Your task to perform on an android device: delete location history Image 0: 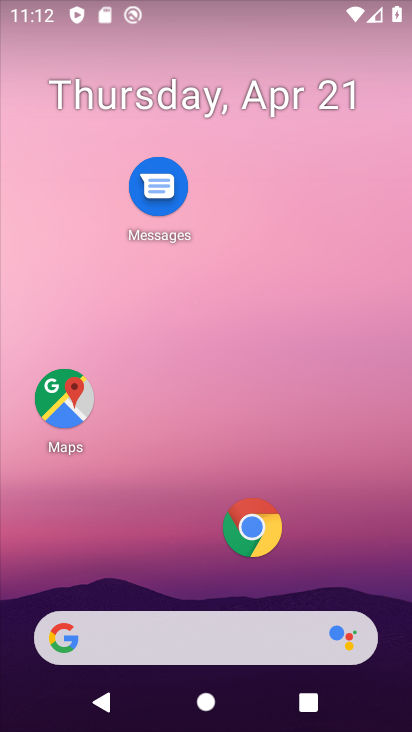
Step 0: drag from (219, 602) to (366, 347)
Your task to perform on an android device: delete location history Image 1: 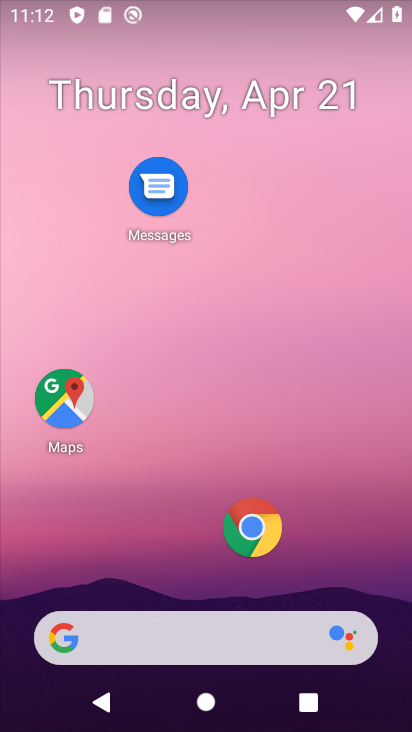
Step 1: drag from (254, 591) to (296, 25)
Your task to perform on an android device: delete location history Image 2: 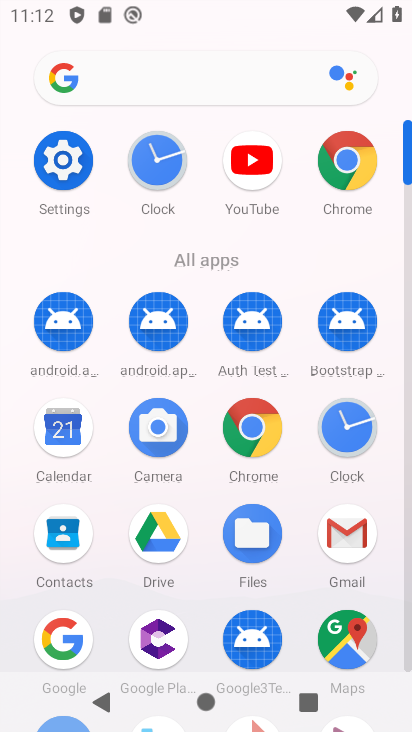
Step 2: click (342, 639)
Your task to perform on an android device: delete location history Image 3: 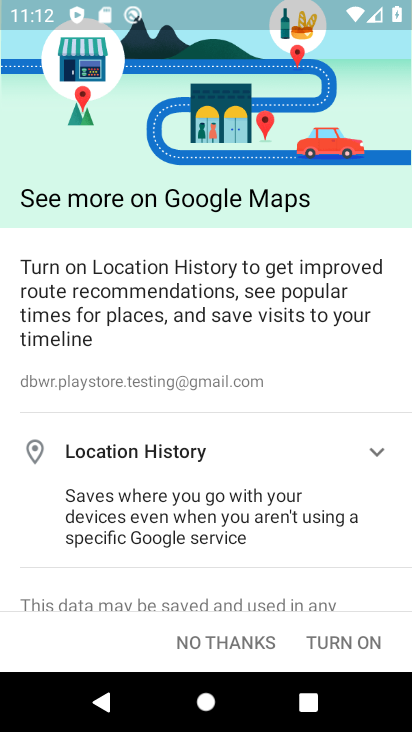
Step 3: click (355, 636)
Your task to perform on an android device: delete location history Image 4: 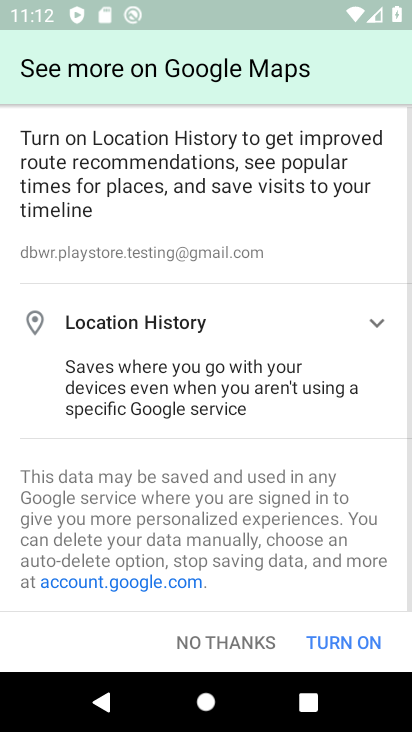
Step 4: click (355, 636)
Your task to perform on an android device: delete location history Image 5: 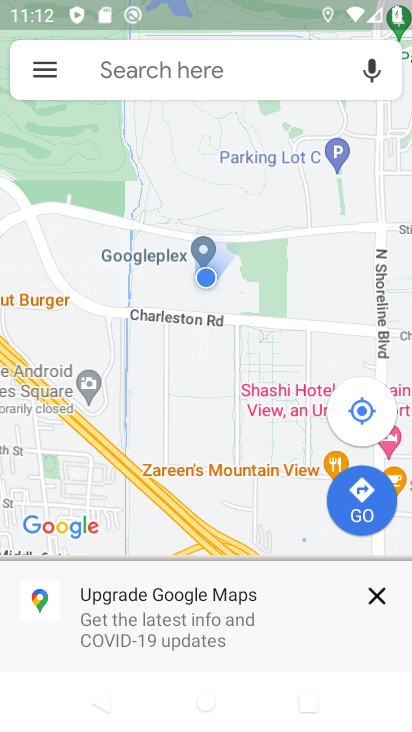
Step 5: click (35, 67)
Your task to perform on an android device: delete location history Image 6: 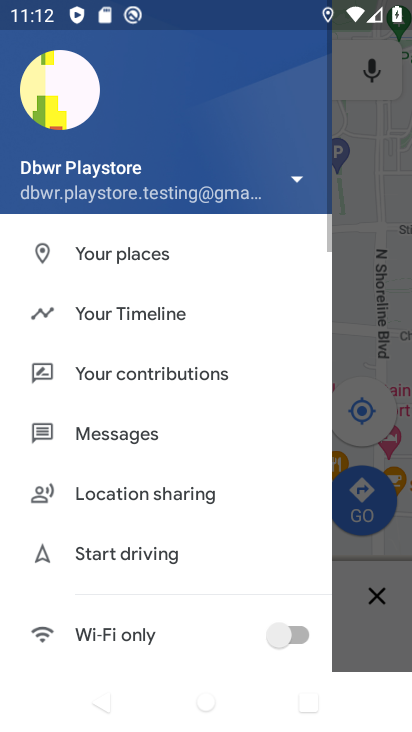
Step 6: click (82, 324)
Your task to perform on an android device: delete location history Image 7: 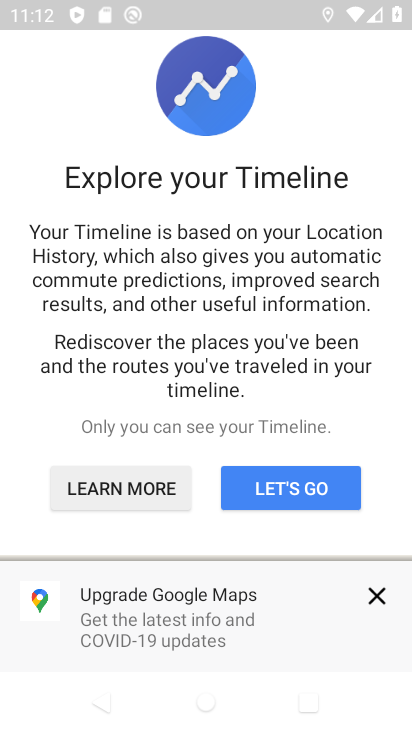
Step 7: click (372, 600)
Your task to perform on an android device: delete location history Image 8: 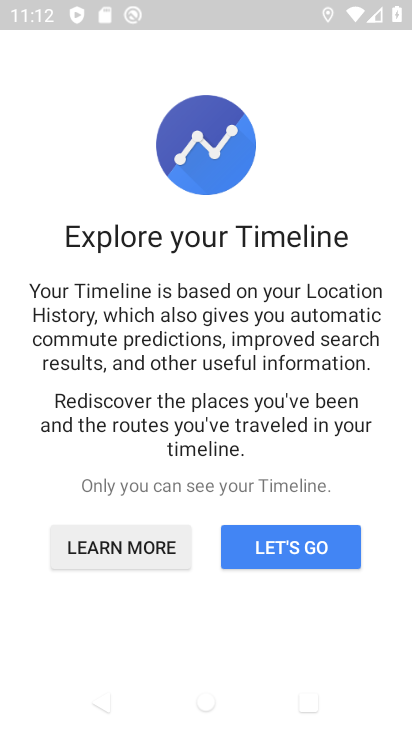
Step 8: click (296, 535)
Your task to perform on an android device: delete location history Image 9: 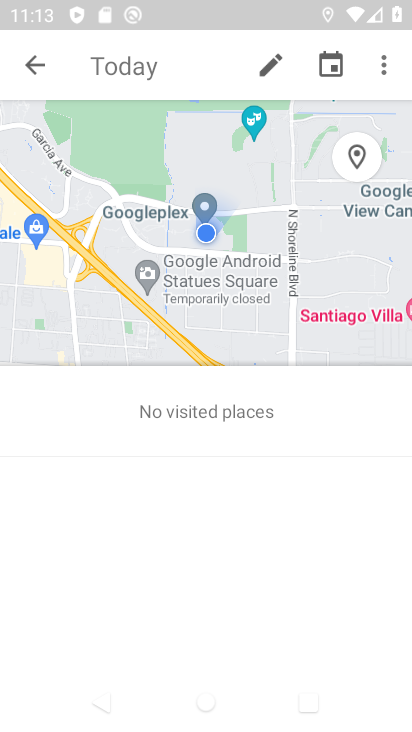
Step 9: click (376, 71)
Your task to perform on an android device: delete location history Image 10: 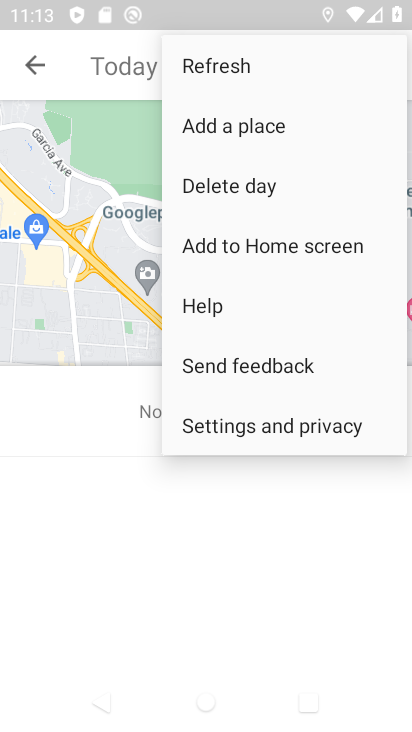
Step 10: click (224, 434)
Your task to perform on an android device: delete location history Image 11: 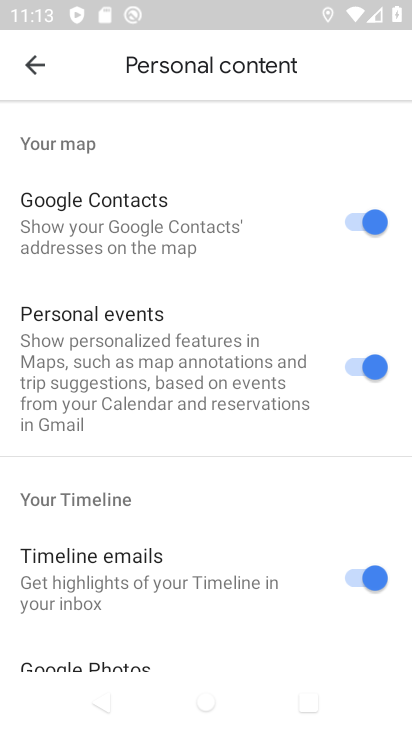
Step 11: drag from (159, 572) to (113, 48)
Your task to perform on an android device: delete location history Image 12: 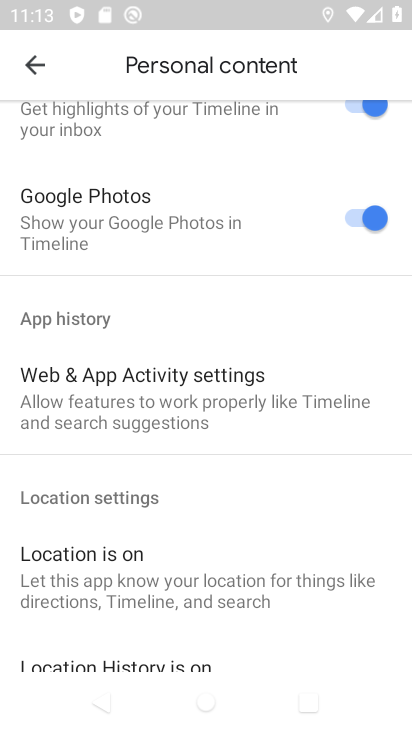
Step 12: drag from (177, 606) to (153, 124)
Your task to perform on an android device: delete location history Image 13: 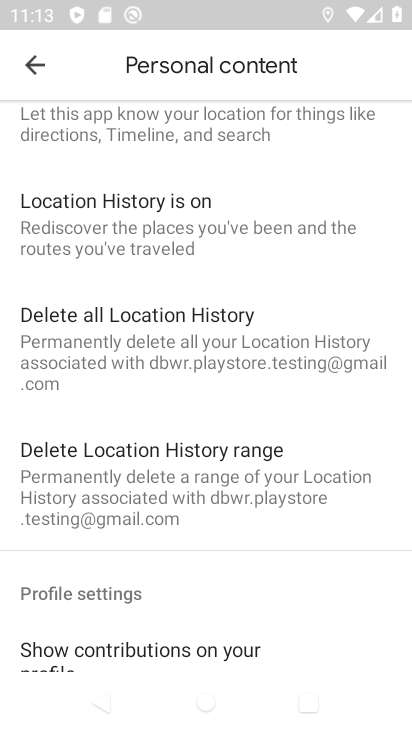
Step 13: click (197, 374)
Your task to perform on an android device: delete location history Image 14: 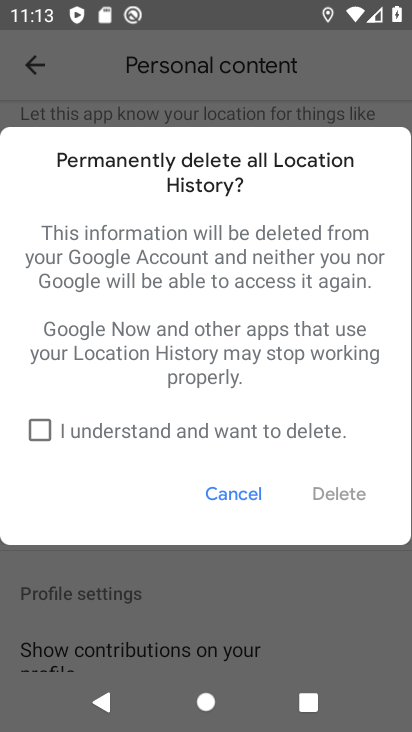
Step 14: click (40, 420)
Your task to perform on an android device: delete location history Image 15: 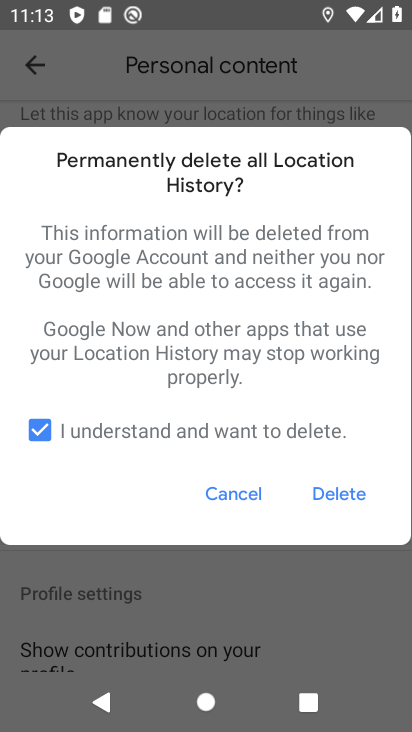
Step 15: click (325, 501)
Your task to perform on an android device: delete location history Image 16: 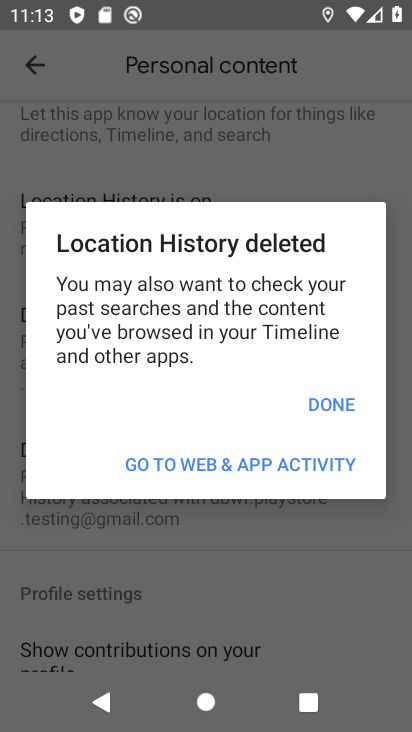
Step 16: task complete